Your task to perform on an android device: Go to location settings Image 0: 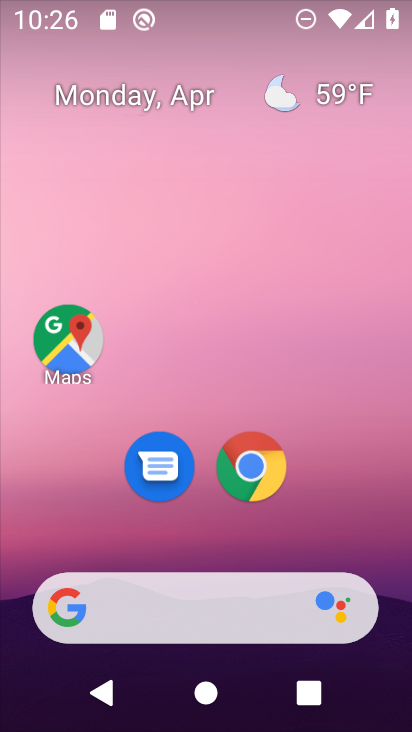
Step 0: drag from (146, 514) to (246, 113)
Your task to perform on an android device: Go to location settings Image 1: 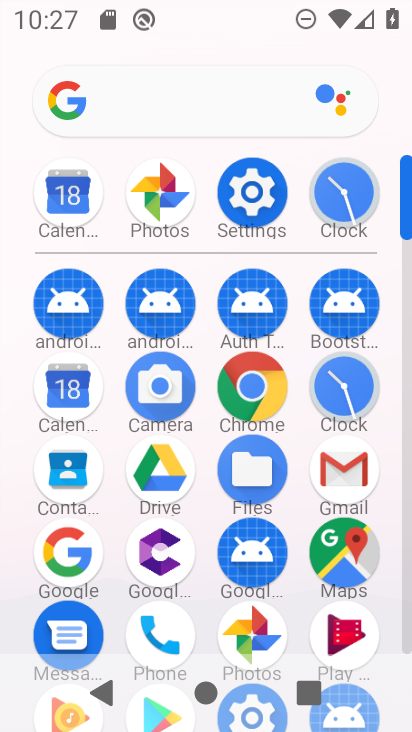
Step 1: click (261, 194)
Your task to perform on an android device: Go to location settings Image 2: 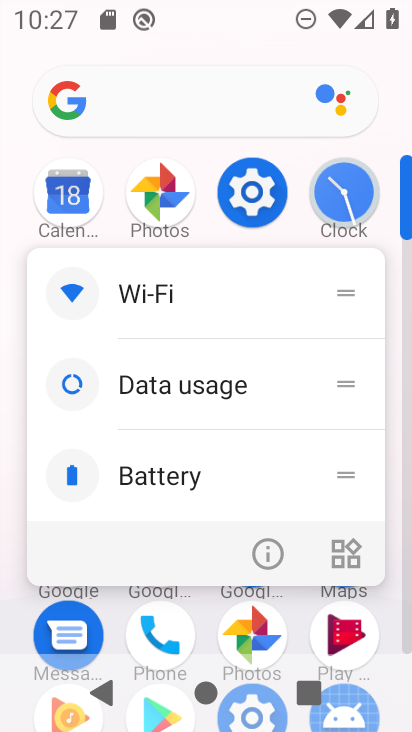
Step 2: click (242, 179)
Your task to perform on an android device: Go to location settings Image 3: 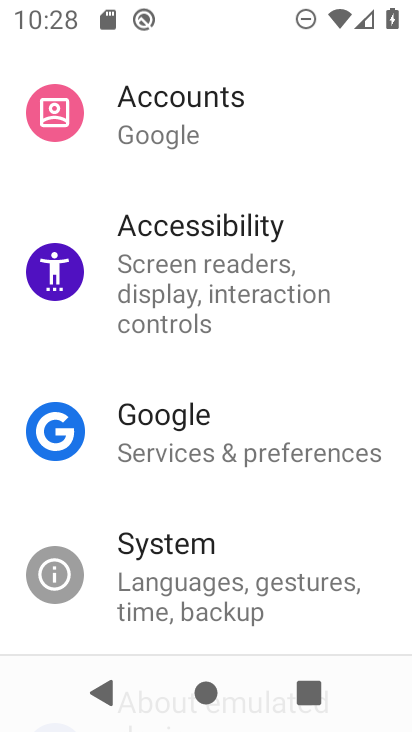
Step 3: drag from (219, 552) to (305, 90)
Your task to perform on an android device: Go to location settings Image 4: 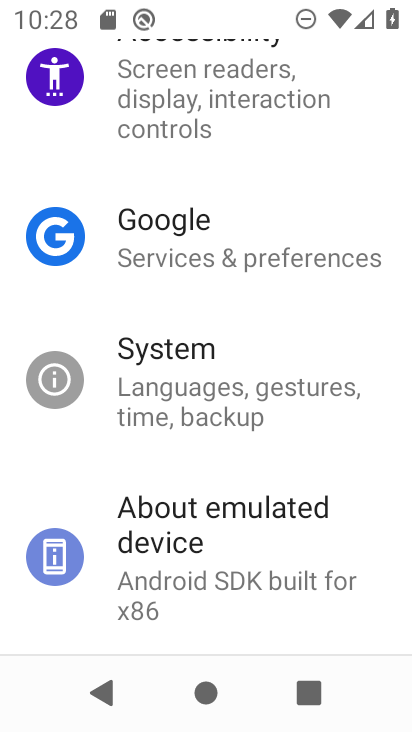
Step 4: drag from (205, 542) to (299, 42)
Your task to perform on an android device: Go to location settings Image 5: 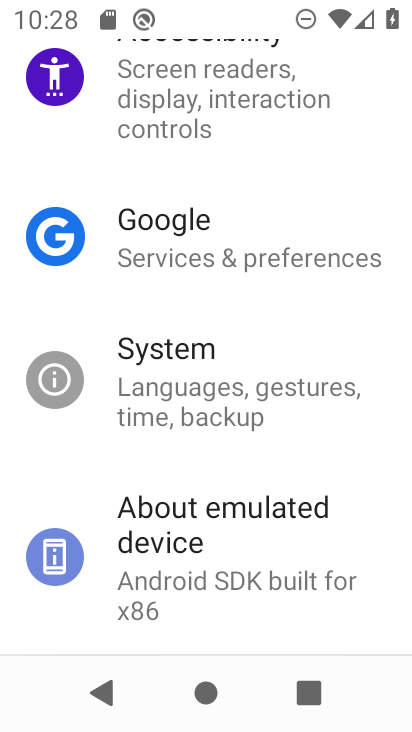
Step 5: drag from (267, 129) to (152, 639)
Your task to perform on an android device: Go to location settings Image 6: 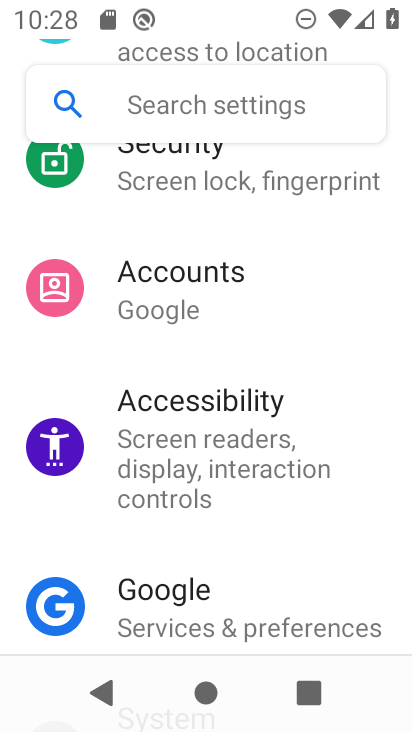
Step 6: drag from (229, 232) to (177, 662)
Your task to perform on an android device: Go to location settings Image 7: 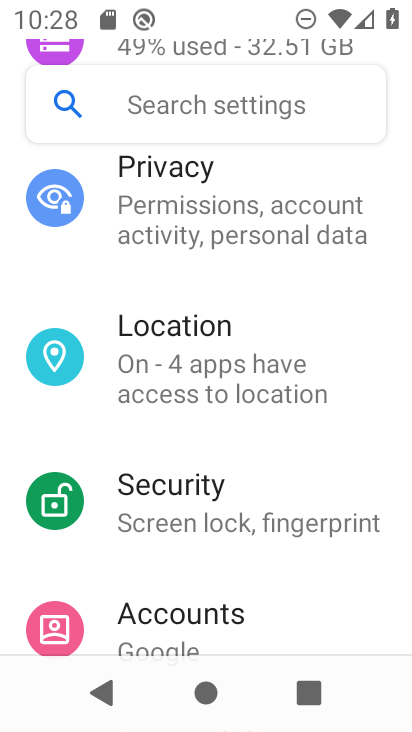
Step 7: click (175, 360)
Your task to perform on an android device: Go to location settings Image 8: 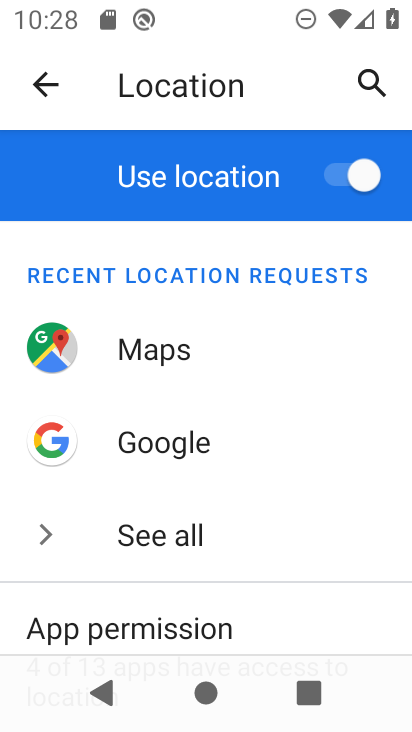
Step 8: task complete